Your task to perform on an android device: open device folders in google photos Image 0: 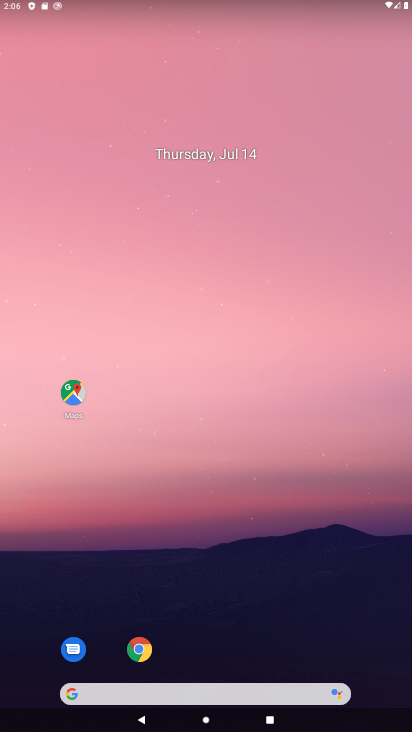
Step 0: drag from (232, 664) to (315, 215)
Your task to perform on an android device: open device folders in google photos Image 1: 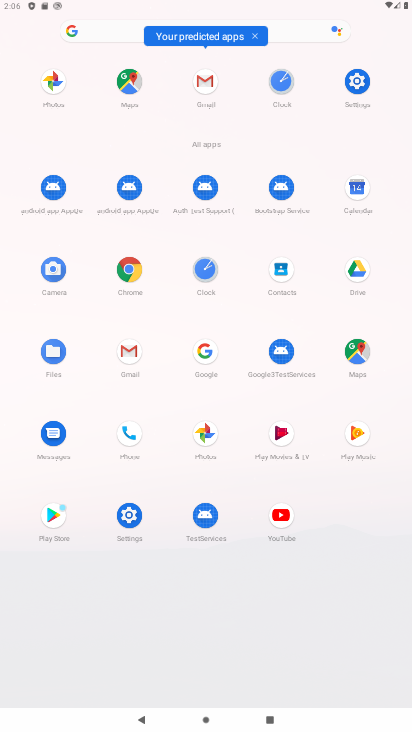
Step 1: click (198, 430)
Your task to perform on an android device: open device folders in google photos Image 2: 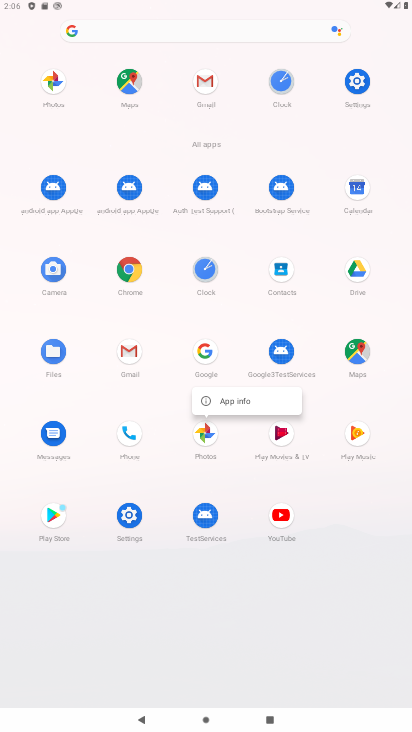
Step 2: click (220, 440)
Your task to perform on an android device: open device folders in google photos Image 3: 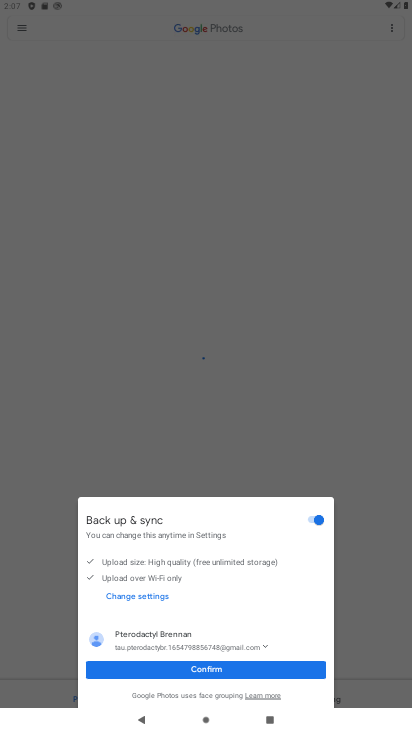
Step 3: click (217, 671)
Your task to perform on an android device: open device folders in google photos Image 4: 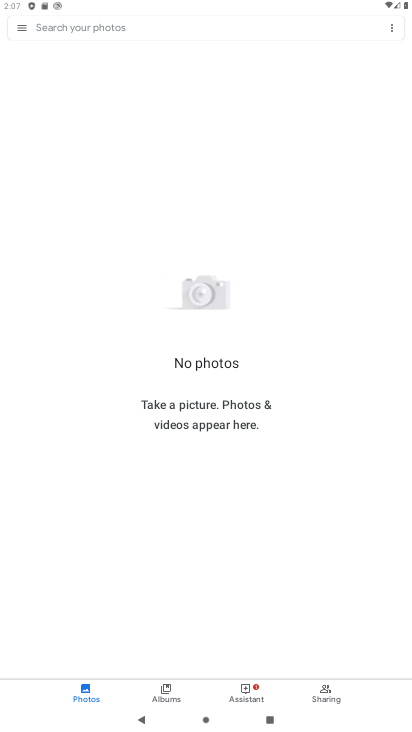
Step 4: click (27, 31)
Your task to perform on an android device: open device folders in google photos Image 5: 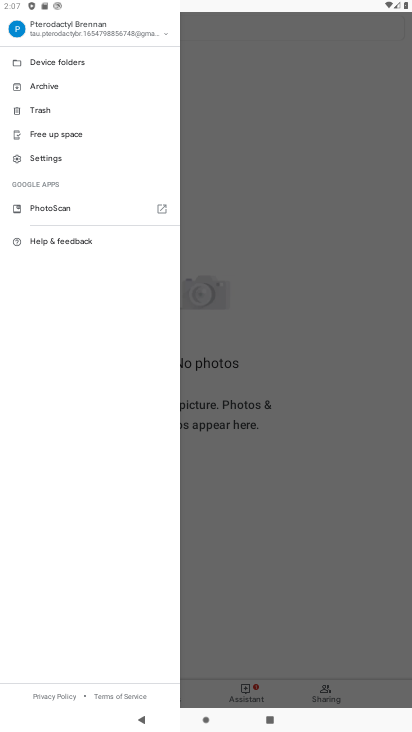
Step 5: click (77, 66)
Your task to perform on an android device: open device folders in google photos Image 6: 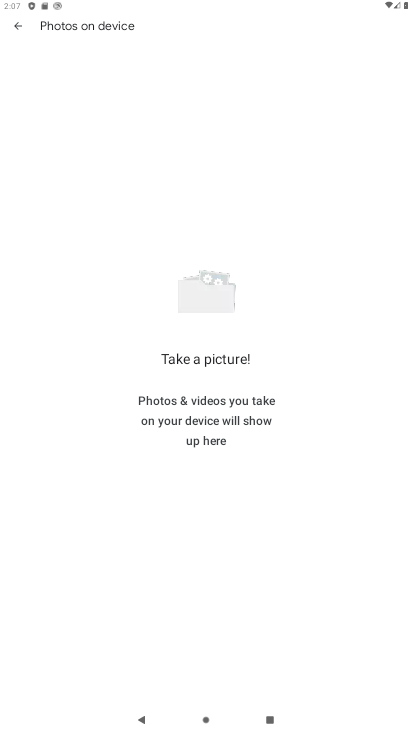
Step 6: task complete